Your task to perform on an android device: Open wifi settings Image 0: 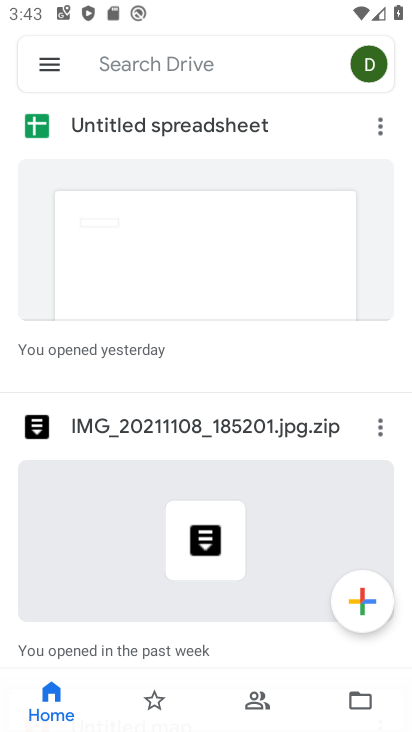
Step 0: press home button
Your task to perform on an android device: Open wifi settings Image 1: 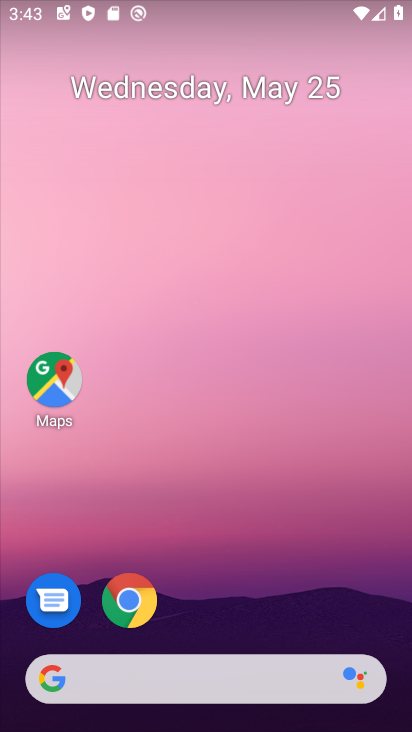
Step 1: drag from (207, 13) to (237, 500)
Your task to perform on an android device: Open wifi settings Image 2: 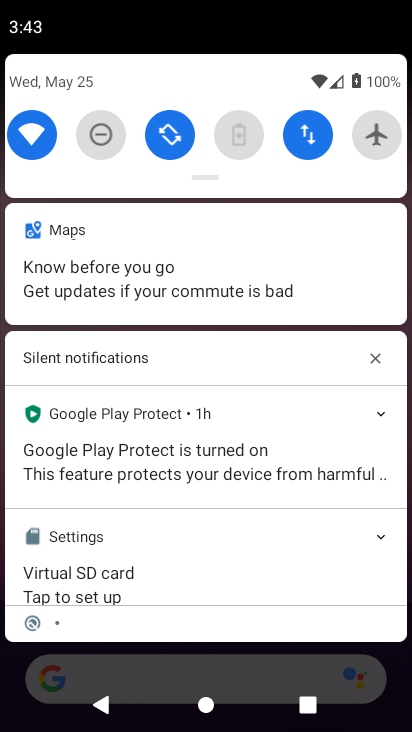
Step 2: click (34, 120)
Your task to perform on an android device: Open wifi settings Image 3: 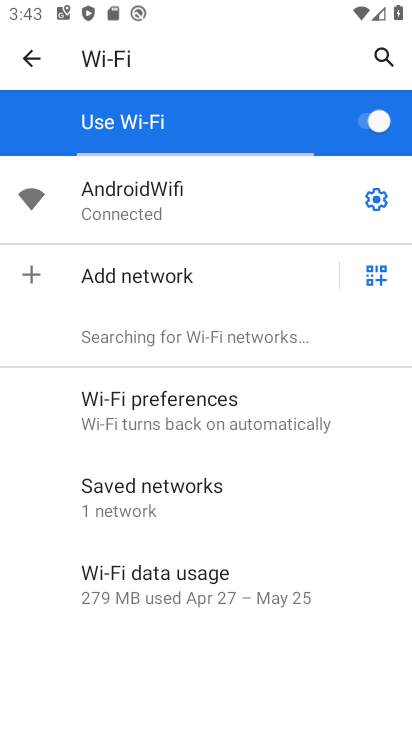
Step 3: click (379, 198)
Your task to perform on an android device: Open wifi settings Image 4: 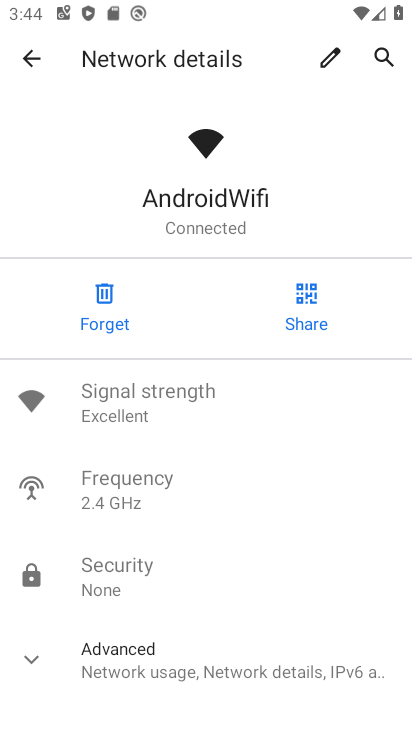
Step 4: task complete